Your task to perform on an android device: Open eBay Image 0: 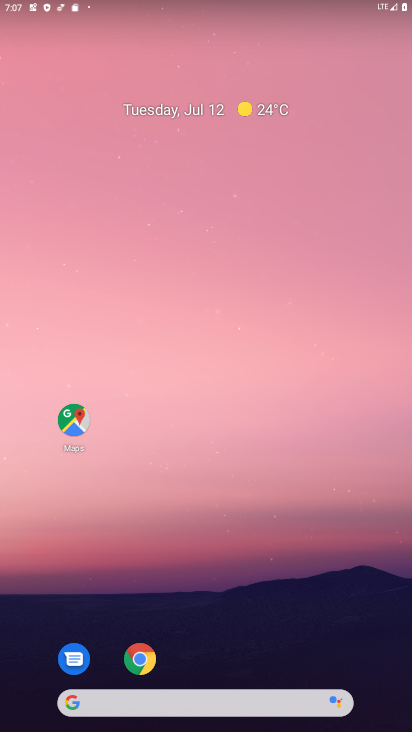
Step 0: drag from (333, 641) to (267, 37)
Your task to perform on an android device: Open eBay Image 1: 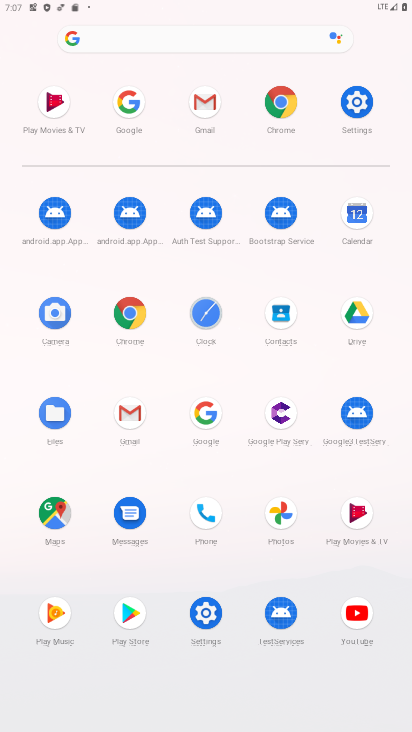
Step 1: click (206, 409)
Your task to perform on an android device: Open eBay Image 2: 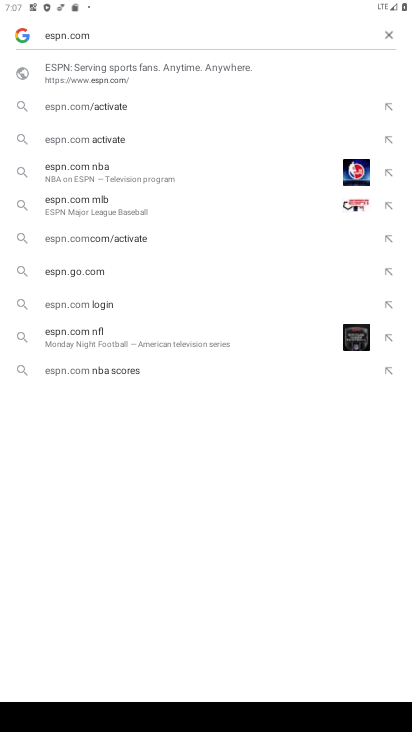
Step 2: click (385, 30)
Your task to perform on an android device: Open eBay Image 3: 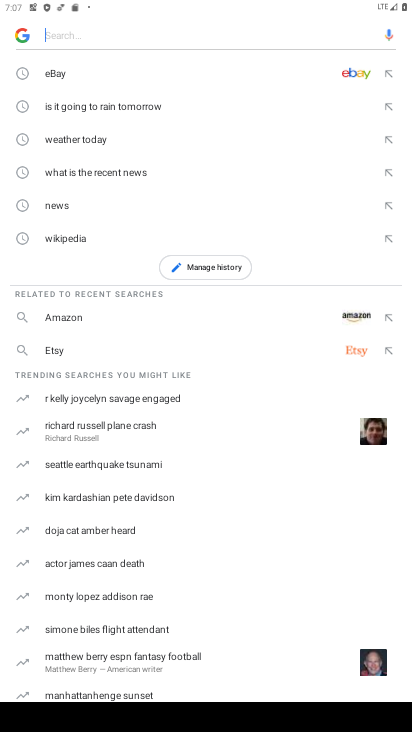
Step 3: click (148, 84)
Your task to perform on an android device: Open eBay Image 4: 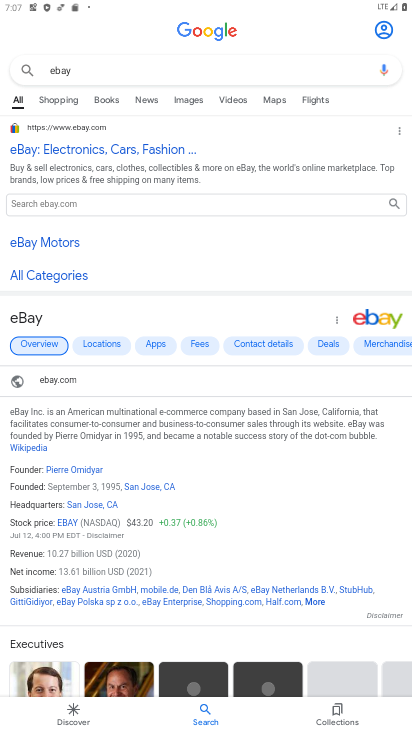
Step 4: task complete